Your task to perform on an android device: remove spam from my inbox in the gmail app Image 0: 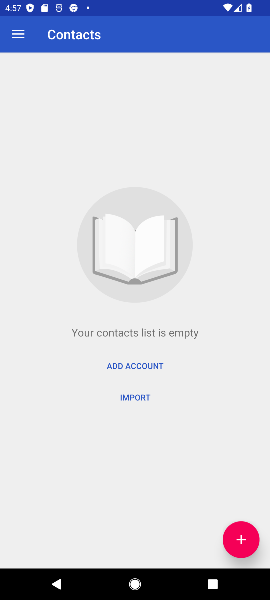
Step 0: press home button
Your task to perform on an android device: remove spam from my inbox in the gmail app Image 1: 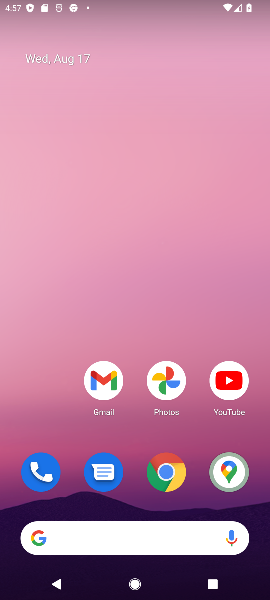
Step 1: click (104, 383)
Your task to perform on an android device: remove spam from my inbox in the gmail app Image 2: 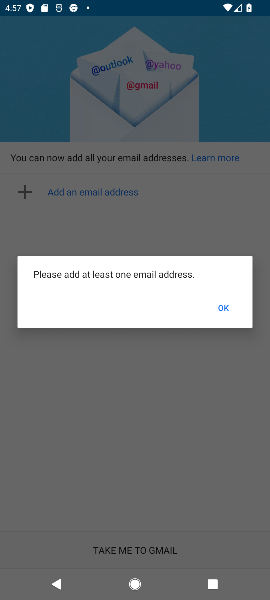
Step 2: click (222, 309)
Your task to perform on an android device: remove spam from my inbox in the gmail app Image 3: 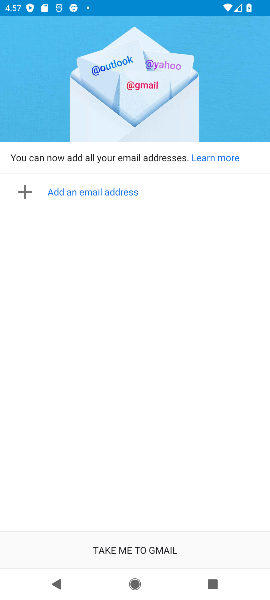
Step 3: task complete